Your task to perform on an android device: set the stopwatch Image 0: 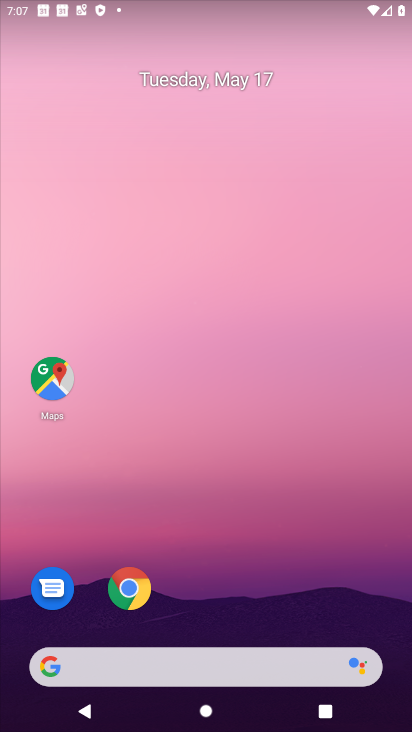
Step 0: drag from (267, 578) to (151, 187)
Your task to perform on an android device: set the stopwatch Image 1: 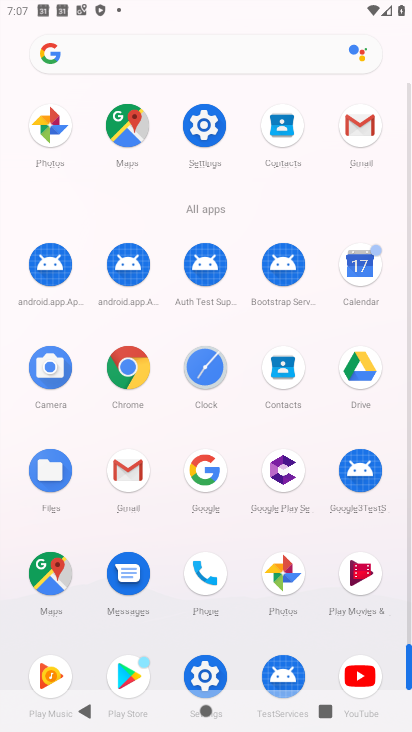
Step 1: click (206, 369)
Your task to perform on an android device: set the stopwatch Image 2: 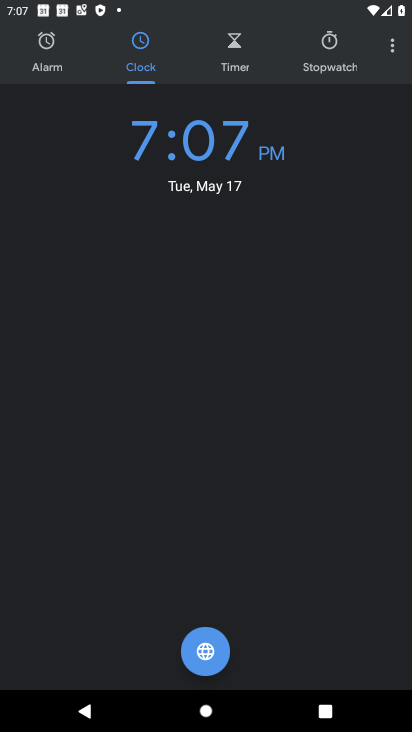
Step 2: click (329, 44)
Your task to perform on an android device: set the stopwatch Image 3: 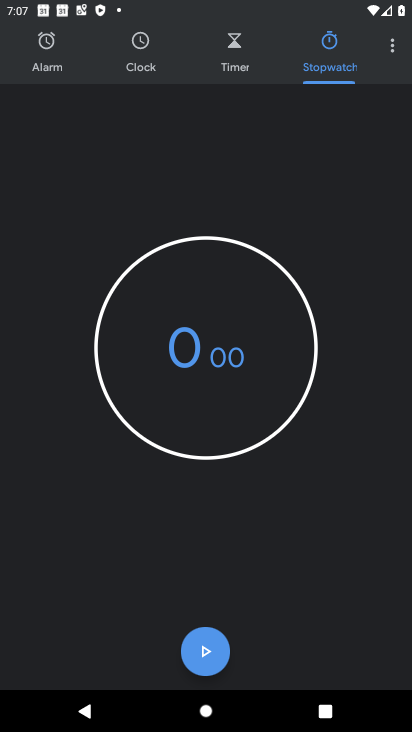
Step 3: click (209, 350)
Your task to perform on an android device: set the stopwatch Image 4: 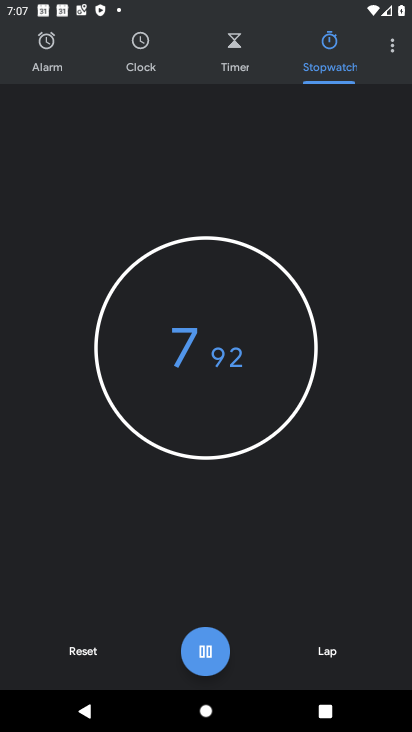
Step 4: click (207, 647)
Your task to perform on an android device: set the stopwatch Image 5: 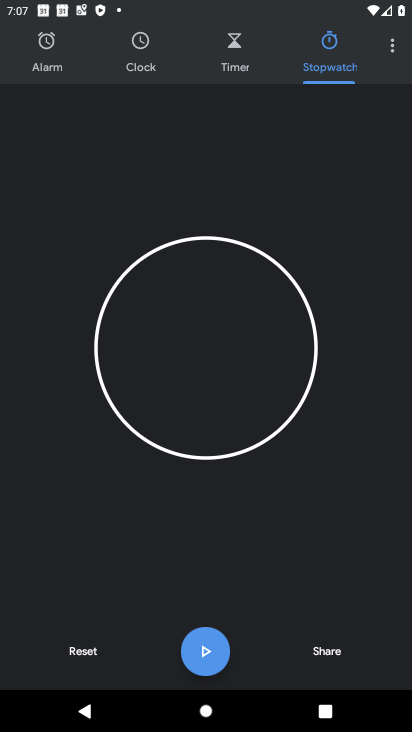
Step 5: task complete